Your task to perform on an android device: toggle sleep mode Image 0: 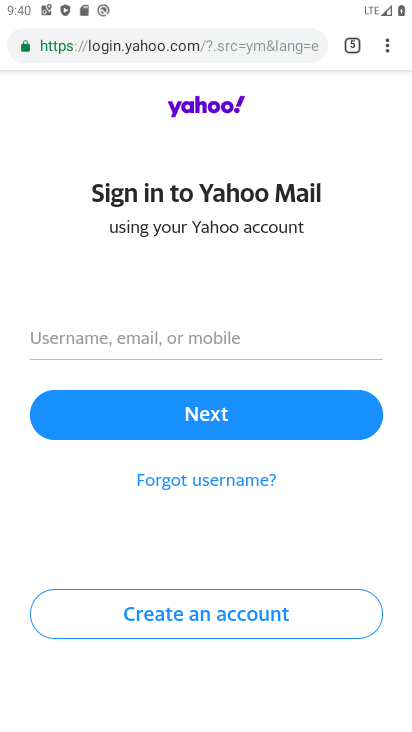
Step 0: press home button
Your task to perform on an android device: toggle sleep mode Image 1: 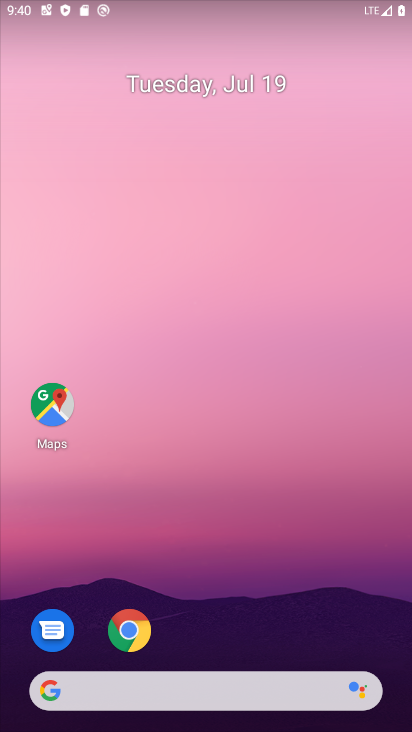
Step 1: drag from (177, 639) to (247, 45)
Your task to perform on an android device: toggle sleep mode Image 2: 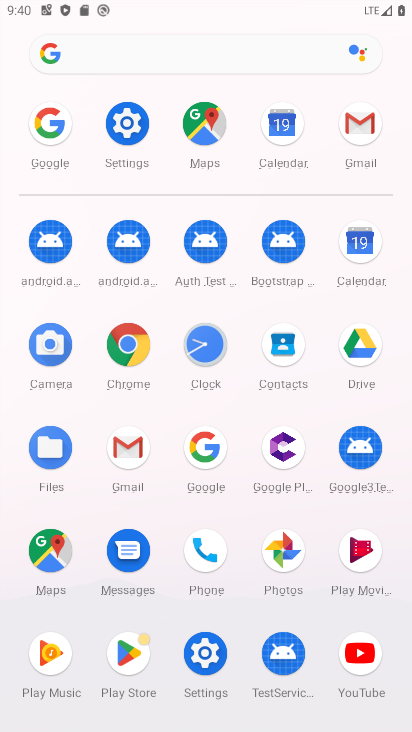
Step 2: click (125, 123)
Your task to perform on an android device: toggle sleep mode Image 3: 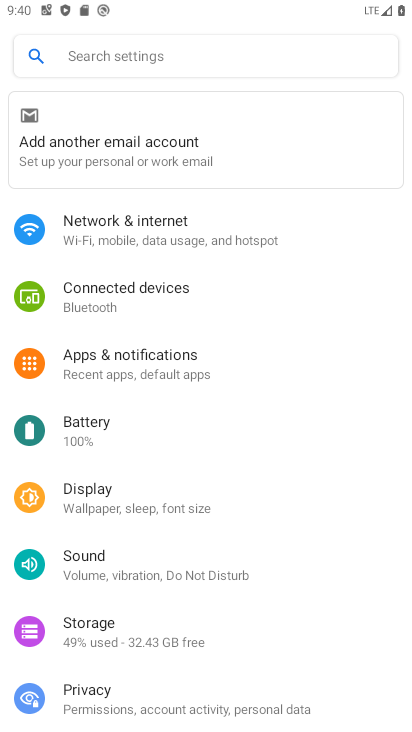
Step 3: click (143, 512)
Your task to perform on an android device: toggle sleep mode Image 4: 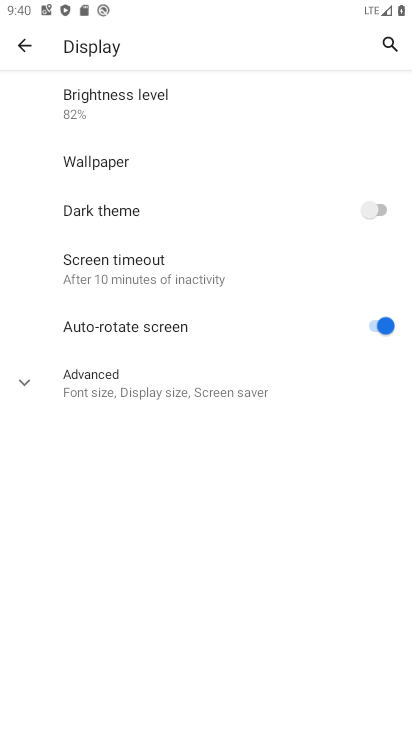
Step 4: click (116, 262)
Your task to perform on an android device: toggle sleep mode Image 5: 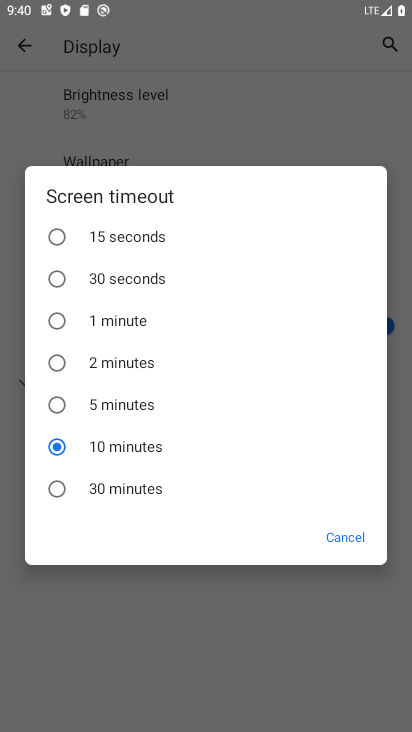
Step 5: click (53, 401)
Your task to perform on an android device: toggle sleep mode Image 6: 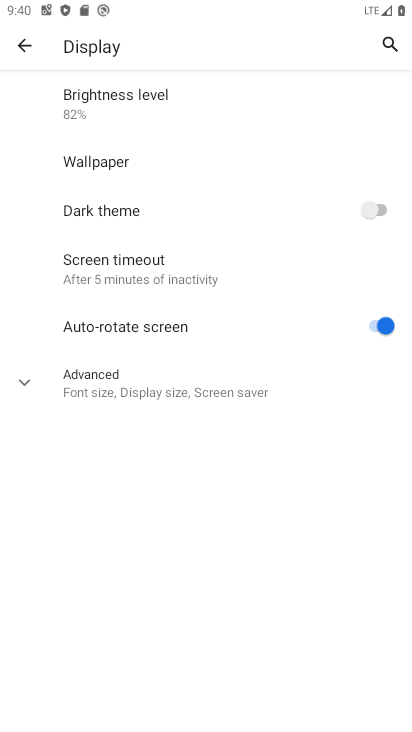
Step 6: task complete